Your task to perform on an android device: open a new tab in the chrome app Image 0: 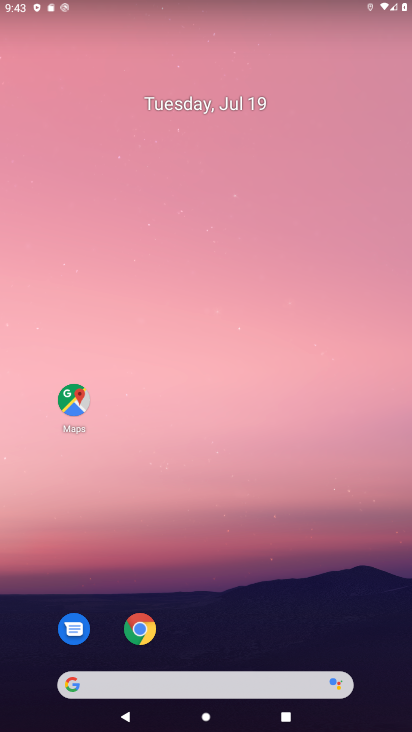
Step 0: click (147, 632)
Your task to perform on an android device: open a new tab in the chrome app Image 1: 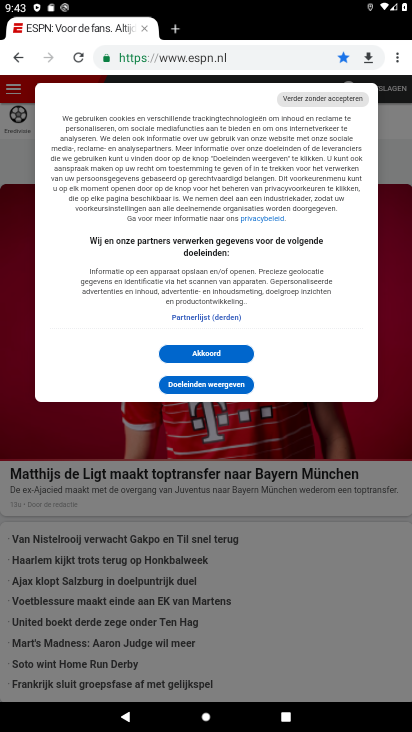
Step 1: click (174, 24)
Your task to perform on an android device: open a new tab in the chrome app Image 2: 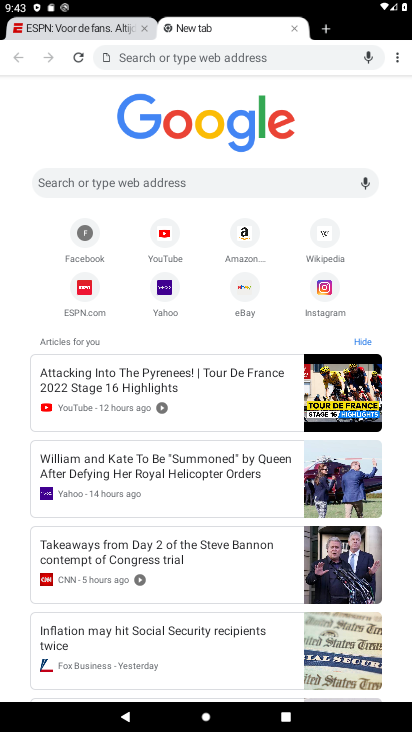
Step 2: task complete